Your task to perform on an android device: Toggle the flashlight Image 0: 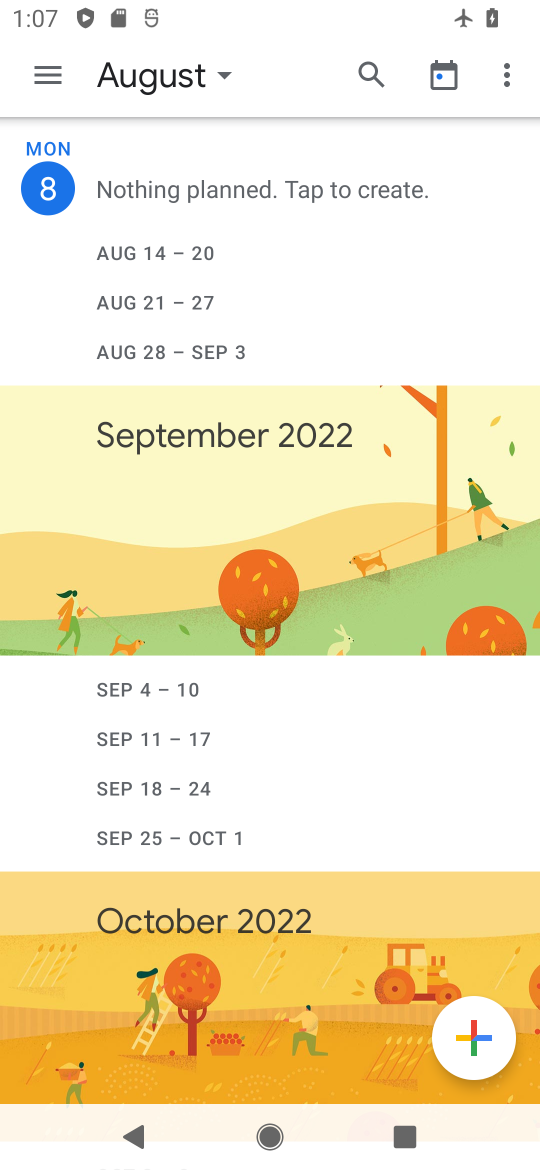
Step 0: press back button
Your task to perform on an android device: Toggle the flashlight Image 1: 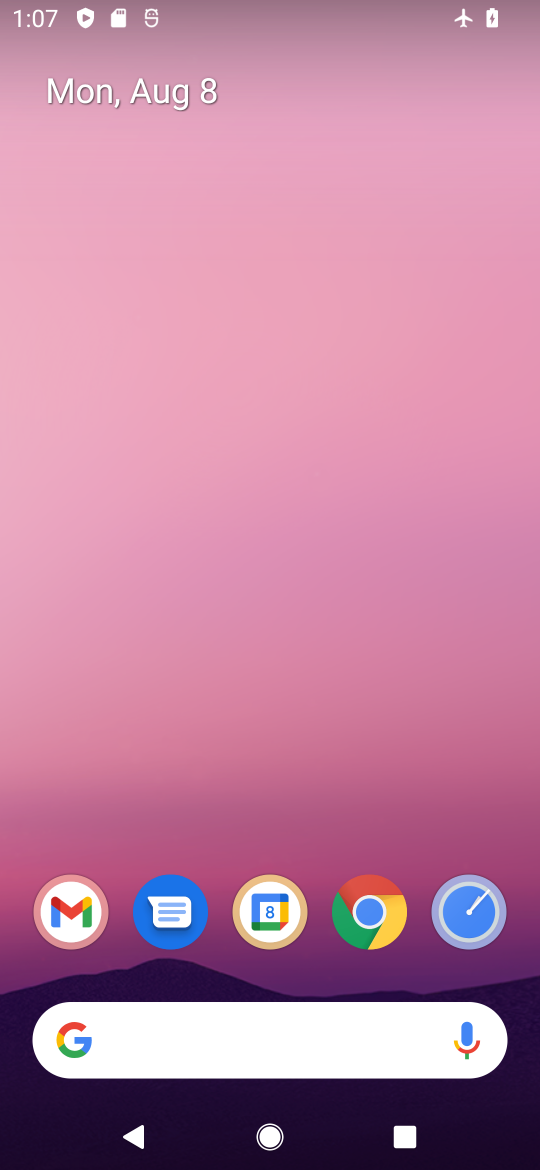
Step 1: drag from (243, 1054) to (342, 3)
Your task to perform on an android device: Toggle the flashlight Image 2: 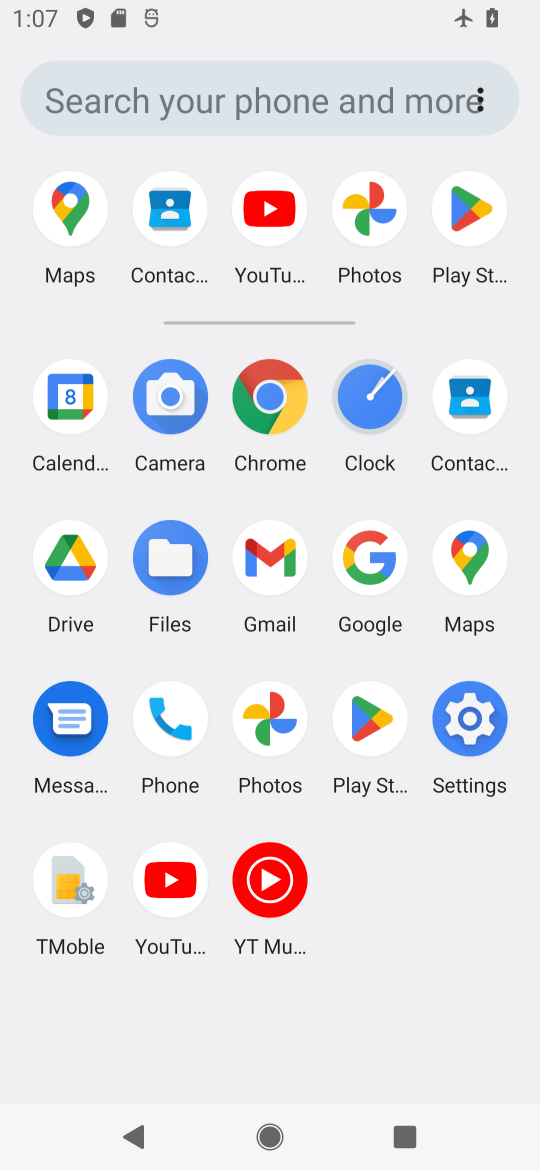
Step 2: click (448, 732)
Your task to perform on an android device: Toggle the flashlight Image 3: 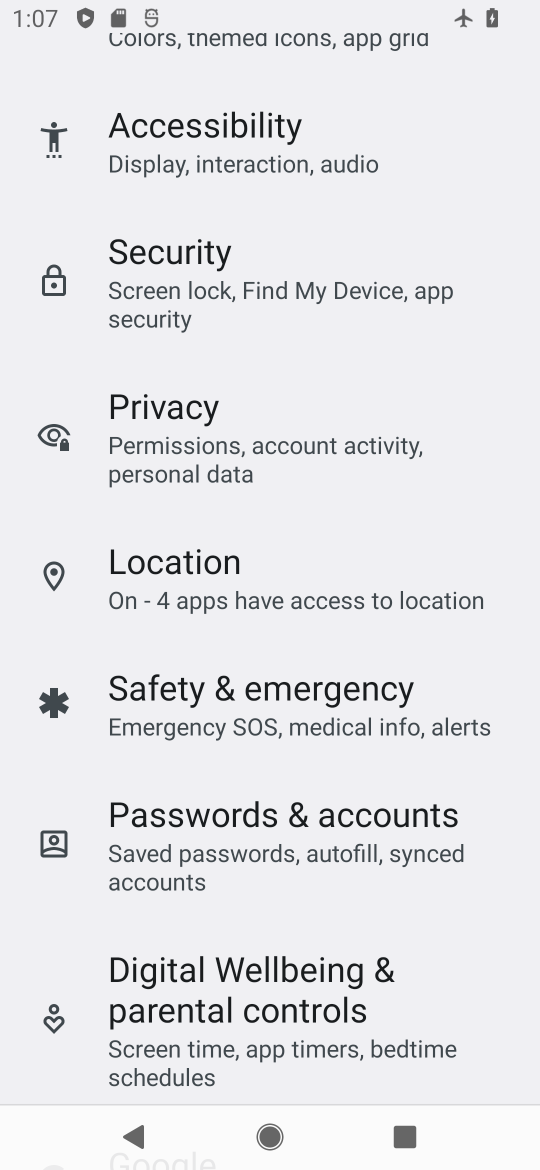
Step 3: drag from (342, 265) to (339, 1097)
Your task to perform on an android device: Toggle the flashlight Image 4: 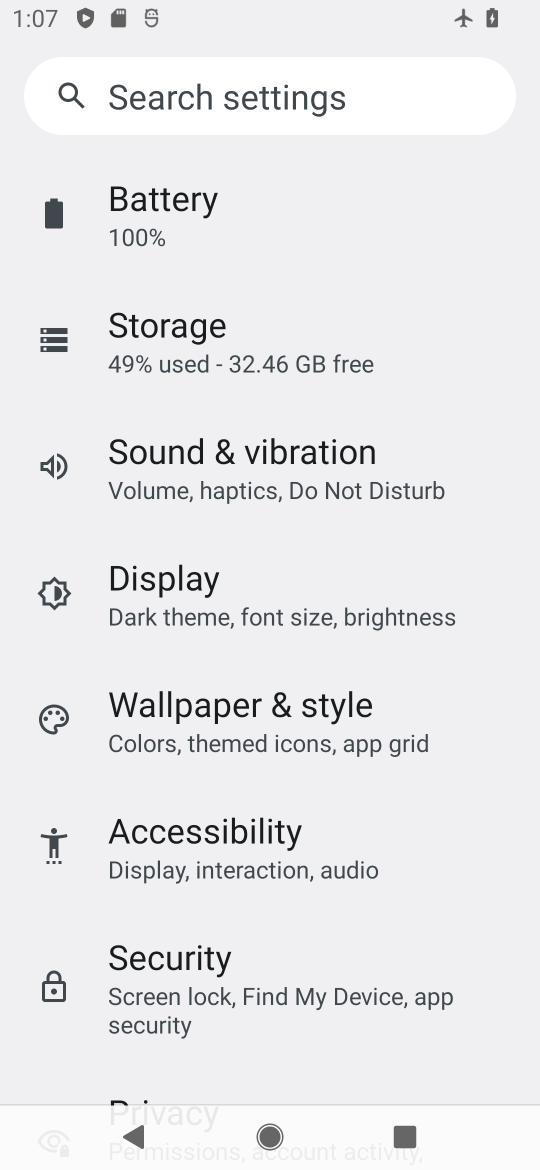
Step 4: drag from (304, 256) to (296, 1092)
Your task to perform on an android device: Toggle the flashlight Image 5: 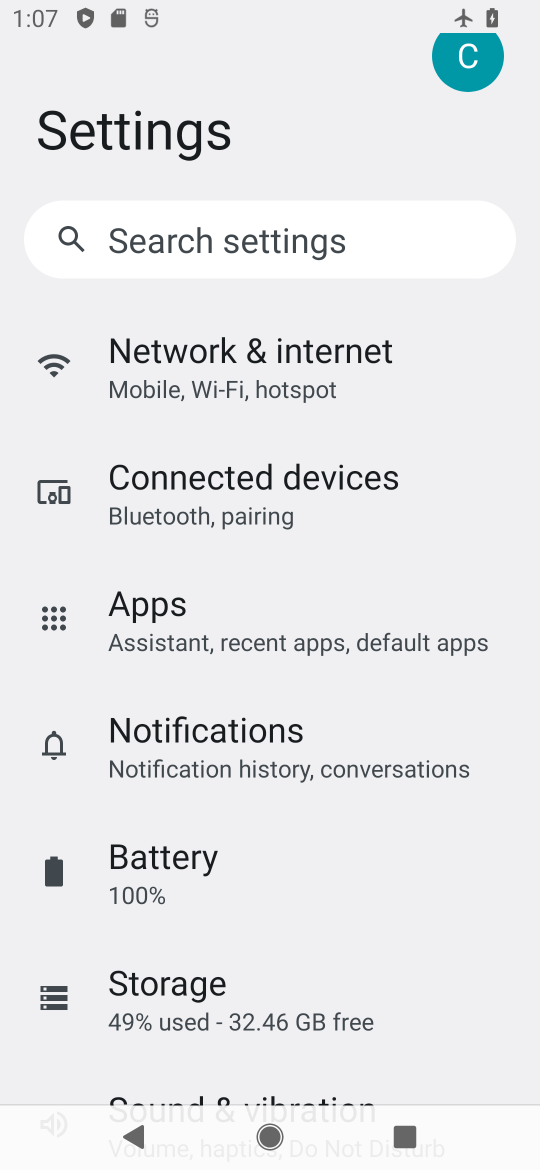
Step 5: click (229, 93)
Your task to perform on an android device: Toggle the flashlight Image 6: 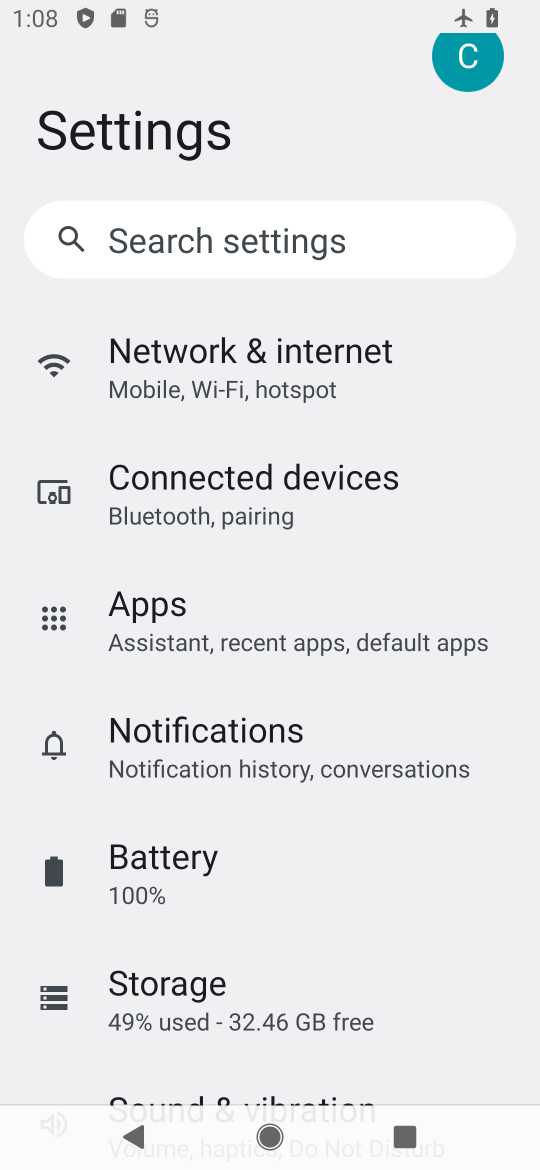
Step 6: type "flashlight"
Your task to perform on an android device: Toggle the flashlight Image 7: 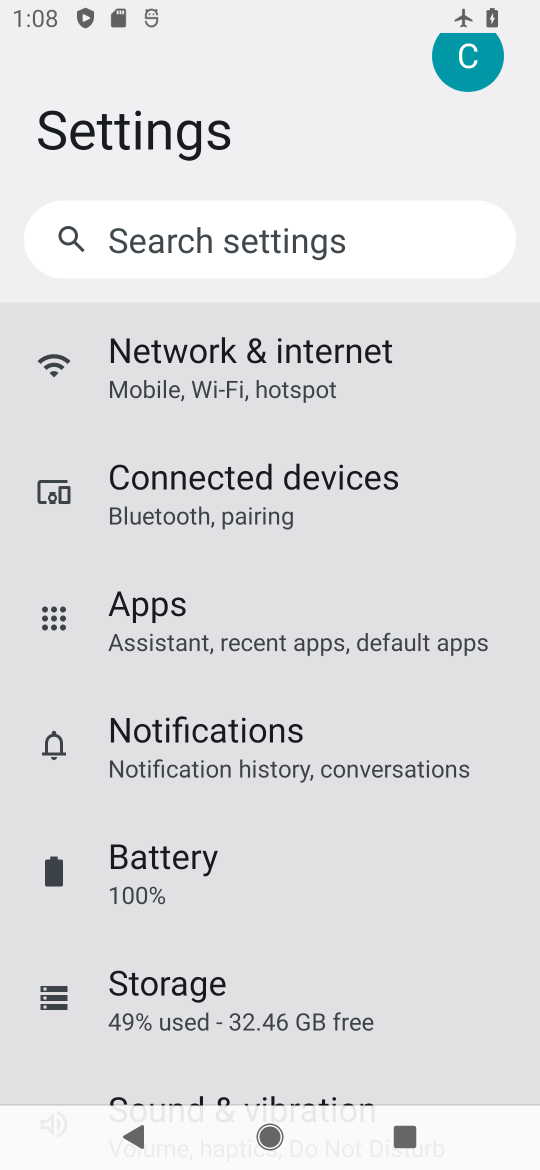
Step 7: click (250, 235)
Your task to perform on an android device: Toggle the flashlight Image 8: 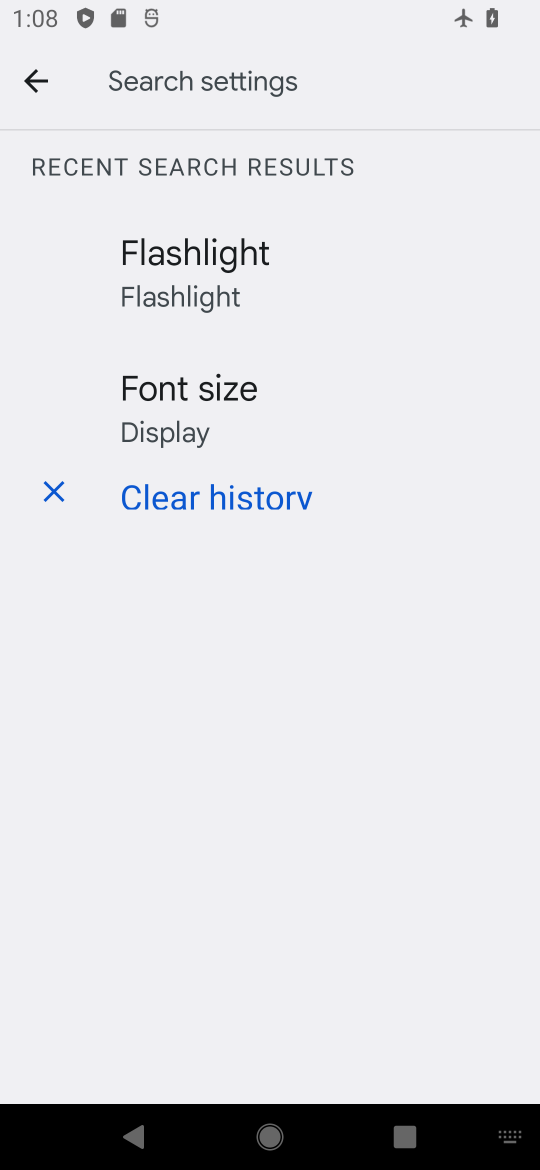
Step 8: click (242, 264)
Your task to perform on an android device: Toggle the flashlight Image 9: 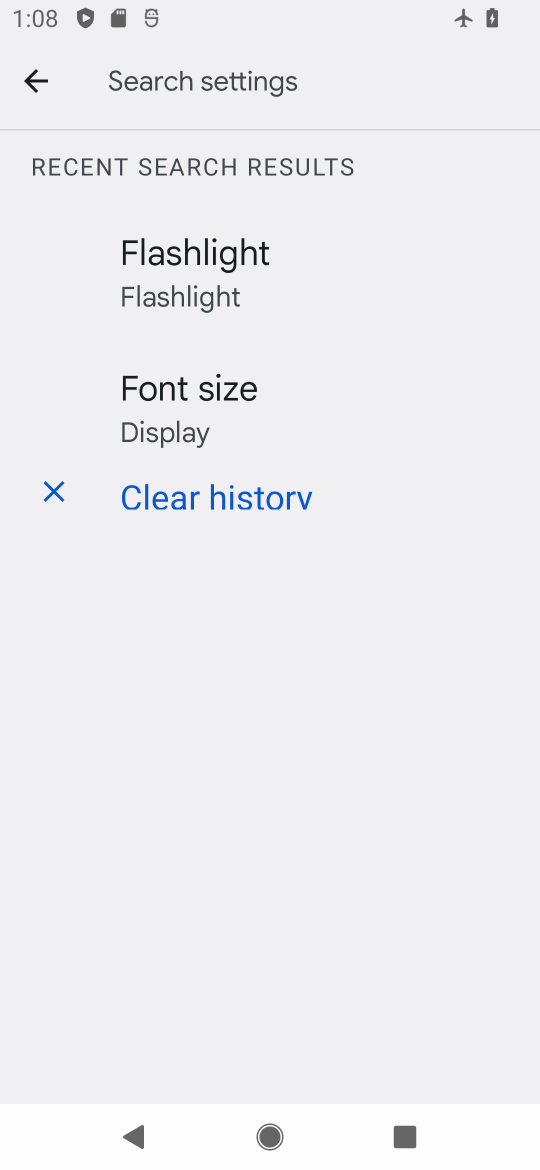
Step 9: click (241, 266)
Your task to perform on an android device: Toggle the flashlight Image 10: 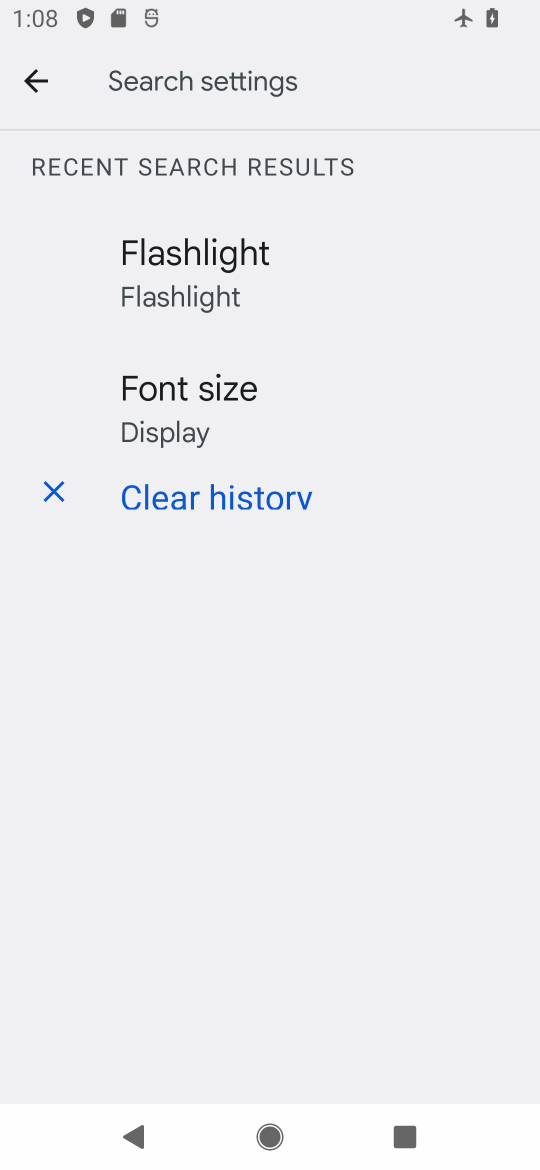
Step 10: task complete